Your task to perform on an android device: snooze an email in the gmail app Image 0: 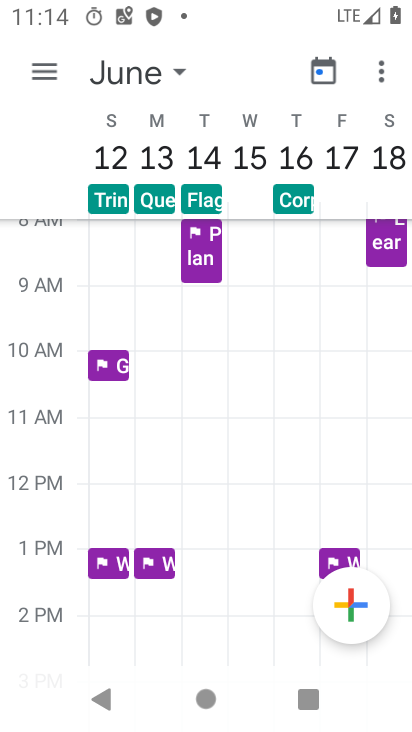
Step 0: press home button
Your task to perform on an android device: snooze an email in the gmail app Image 1: 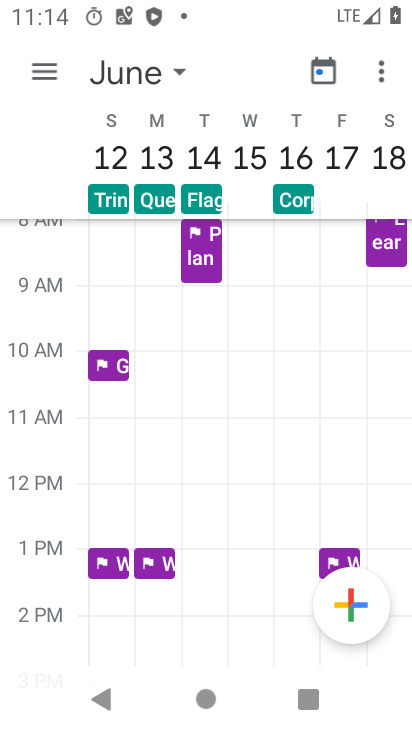
Step 1: press home button
Your task to perform on an android device: snooze an email in the gmail app Image 2: 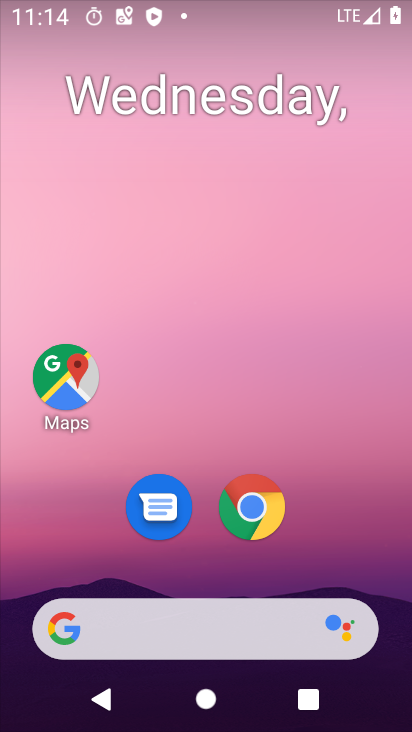
Step 2: drag from (240, 725) to (176, 119)
Your task to perform on an android device: snooze an email in the gmail app Image 3: 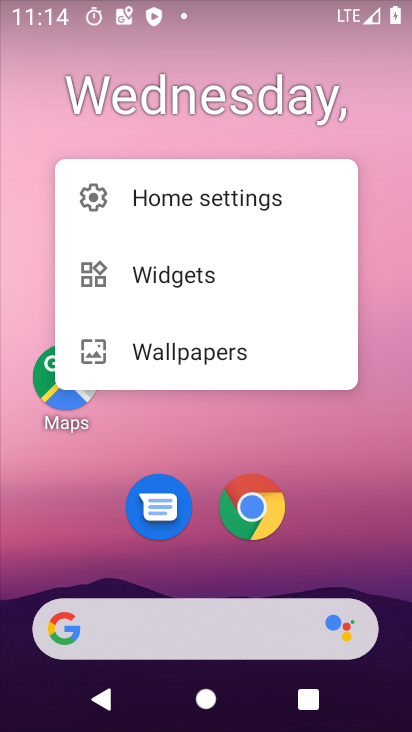
Step 3: click (217, 434)
Your task to perform on an android device: snooze an email in the gmail app Image 4: 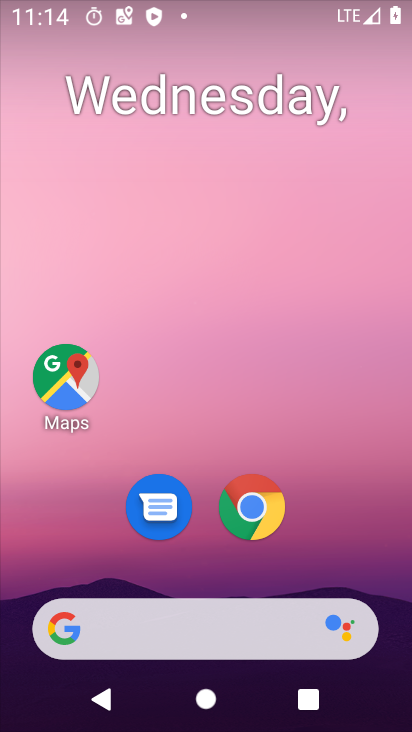
Step 4: drag from (221, 722) to (157, 122)
Your task to perform on an android device: snooze an email in the gmail app Image 5: 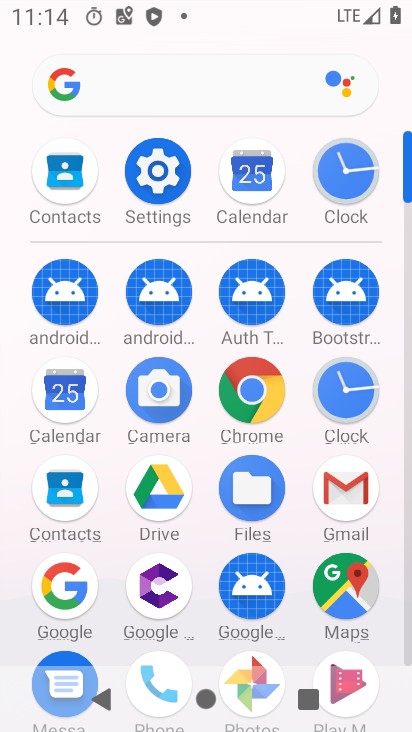
Step 5: click (365, 478)
Your task to perform on an android device: snooze an email in the gmail app Image 6: 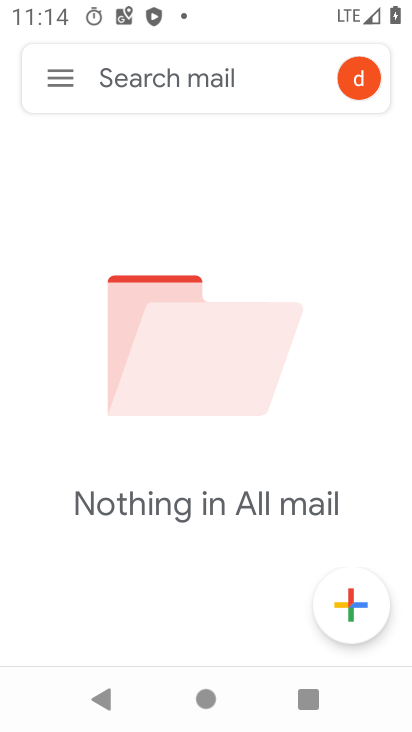
Step 6: click (63, 84)
Your task to perform on an android device: snooze an email in the gmail app Image 7: 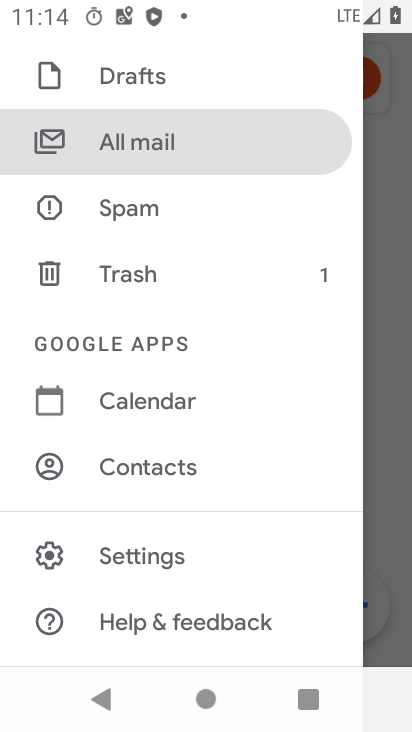
Step 7: drag from (130, 142) to (153, 444)
Your task to perform on an android device: snooze an email in the gmail app Image 8: 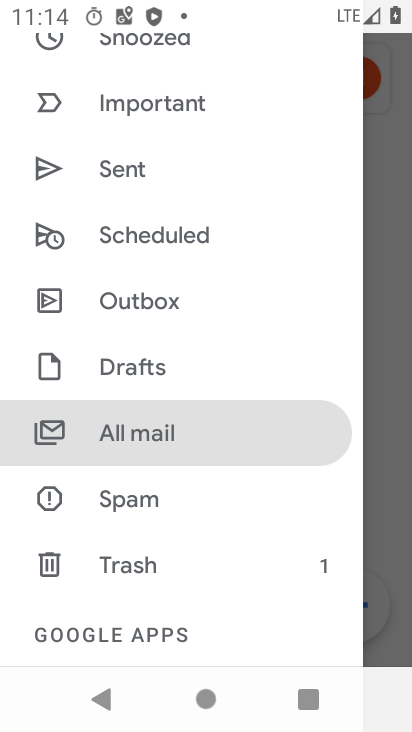
Step 8: drag from (121, 175) to (130, 459)
Your task to perform on an android device: snooze an email in the gmail app Image 9: 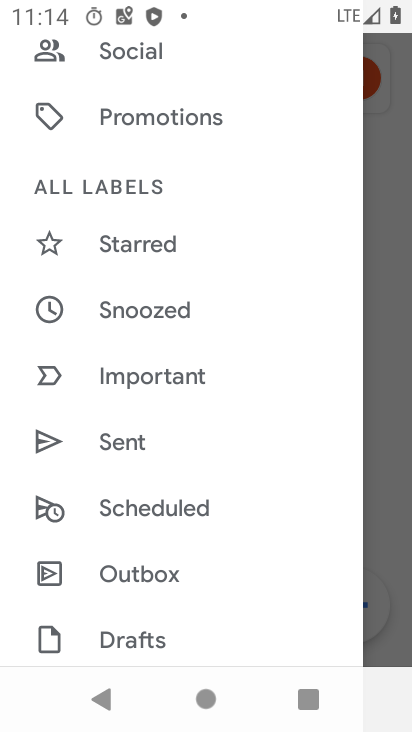
Step 9: click (120, 310)
Your task to perform on an android device: snooze an email in the gmail app Image 10: 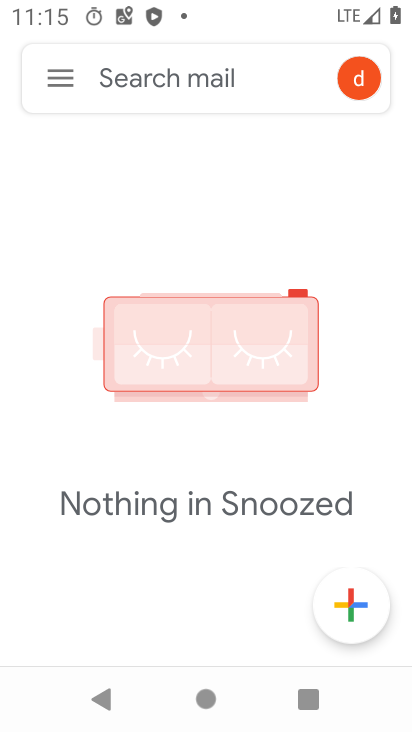
Step 10: click (61, 80)
Your task to perform on an android device: snooze an email in the gmail app Image 11: 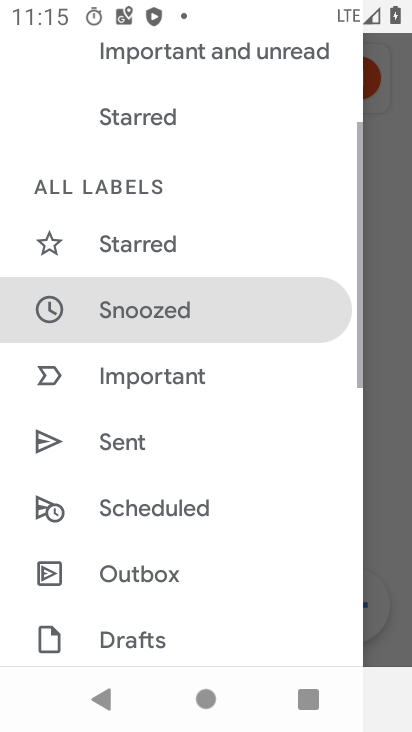
Step 11: drag from (128, 144) to (193, 557)
Your task to perform on an android device: snooze an email in the gmail app Image 12: 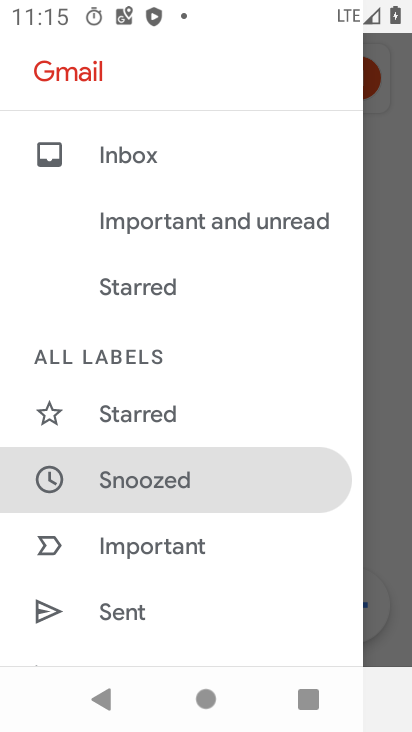
Step 12: click (110, 146)
Your task to perform on an android device: snooze an email in the gmail app Image 13: 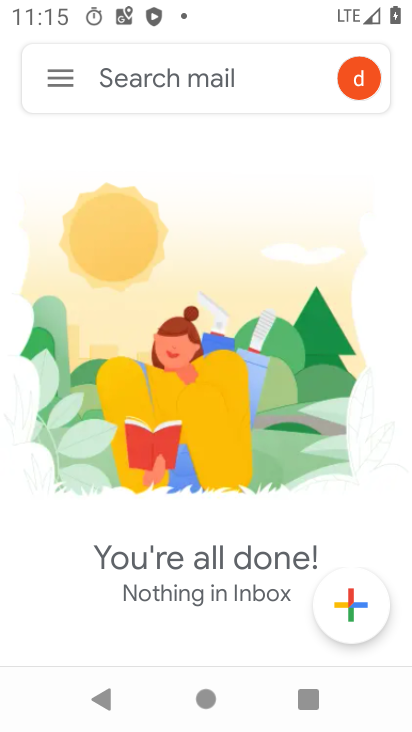
Step 13: task complete